Your task to perform on an android device: Open the camera Image 0: 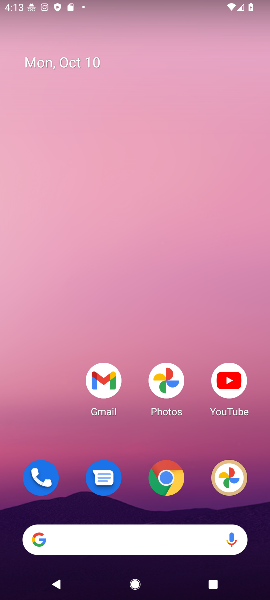
Step 0: drag from (157, 500) to (167, 95)
Your task to perform on an android device: Open the camera Image 1: 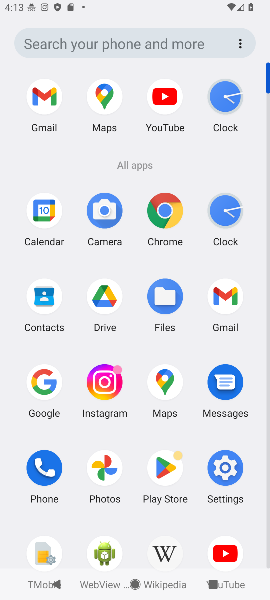
Step 1: drag from (150, 526) to (168, 314)
Your task to perform on an android device: Open the camera Image 2: 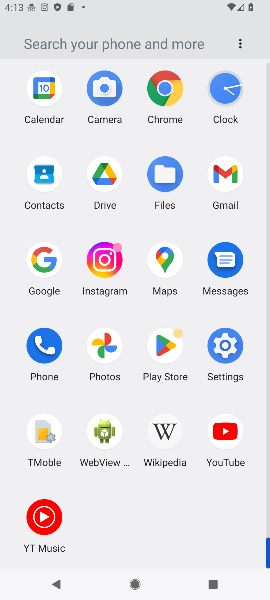
Step 2: click (113, 83)
Your task to perform on an android device: Open the camera Image 3: 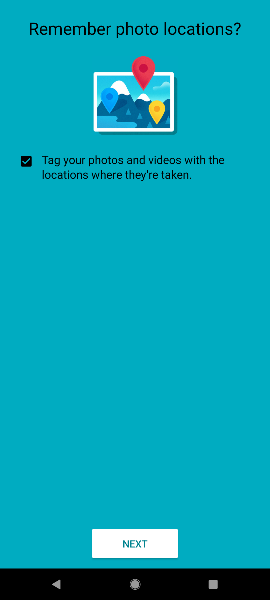
Step 3: click (118, 538)
Your task to perform on an android device: Open the camera Image 4: 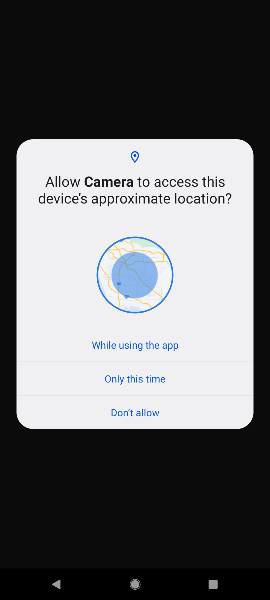
Step 4: click (109, 347)
Your task to perform on an android device: Open the camera Image 5: 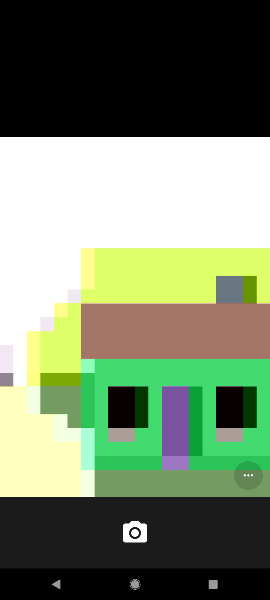
Step 5: task complete